Your task to perform on an android device: Open the Play Movies app and select the watchlist tab. Image 0: 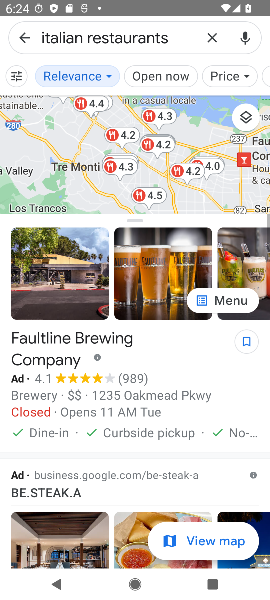
Step 0: press home button
Your task to perform on an android device: Open the Play Movies app and select the watchlist tab. Image 1: 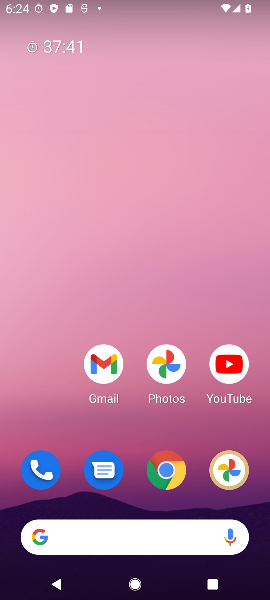
Step 1: task complete